Your task to perform on an android device: open app "WhatsApp Messenger" (install if not already installed) and enter user name: "cartons@outlook.com" and password: "approximated" Image 0: 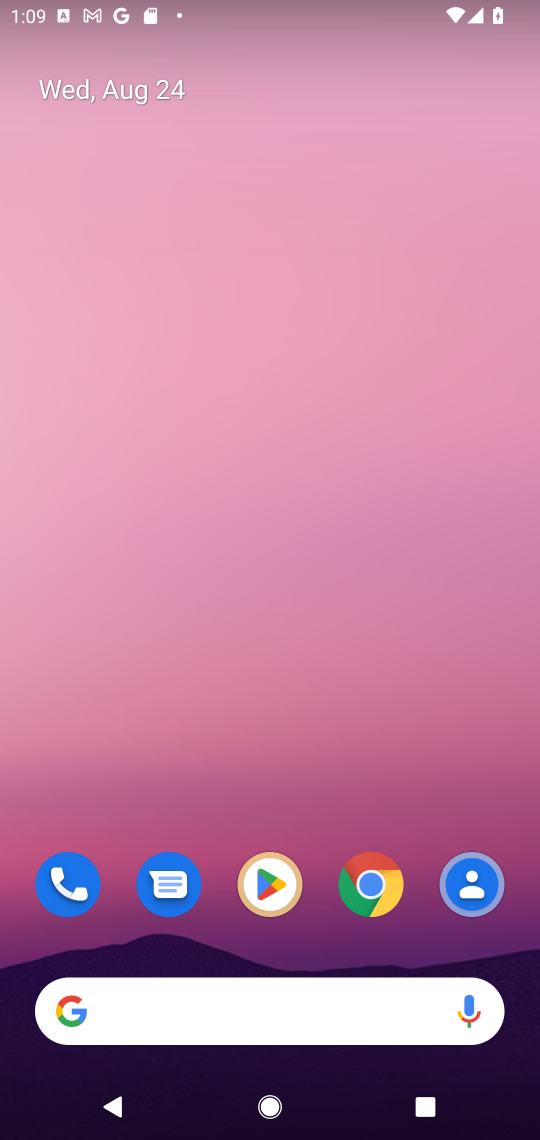
Step 0: drag from (227, 1012) to (263, 197)
Your task to perform on an android device: open app "WhatsApp Messenger" (install if not already installed) and enter user name: "cartons@outlook.com" and password: "approximated" Image 1: 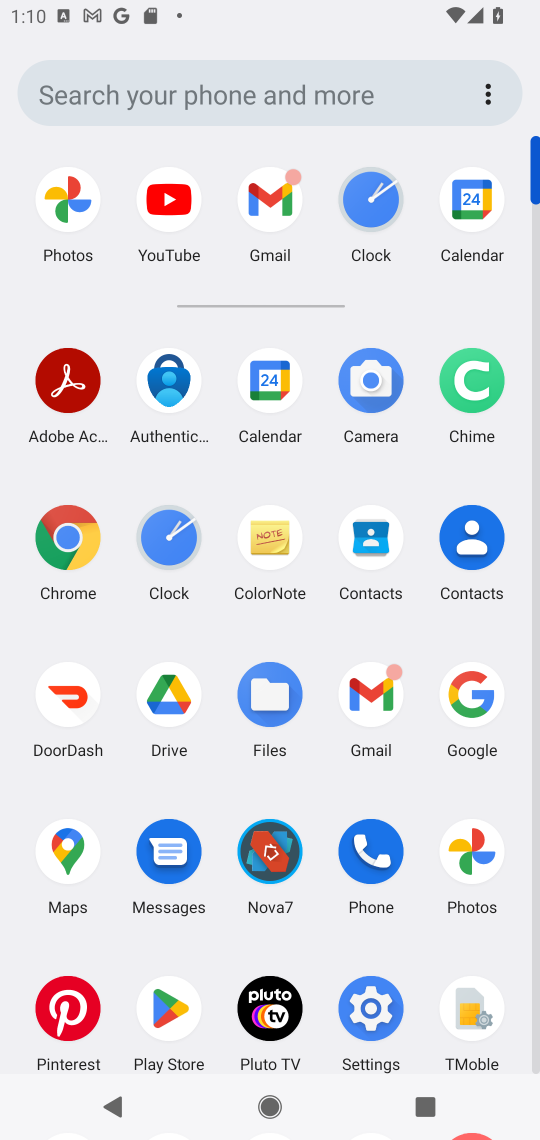
Step 1: click (170, 1004)
Your task to perform on an android device: open app "WhatsApp Messenger" (install if not already installed) and enter user name: "cartons@outlook.com" and password: "approximated" Image 2: 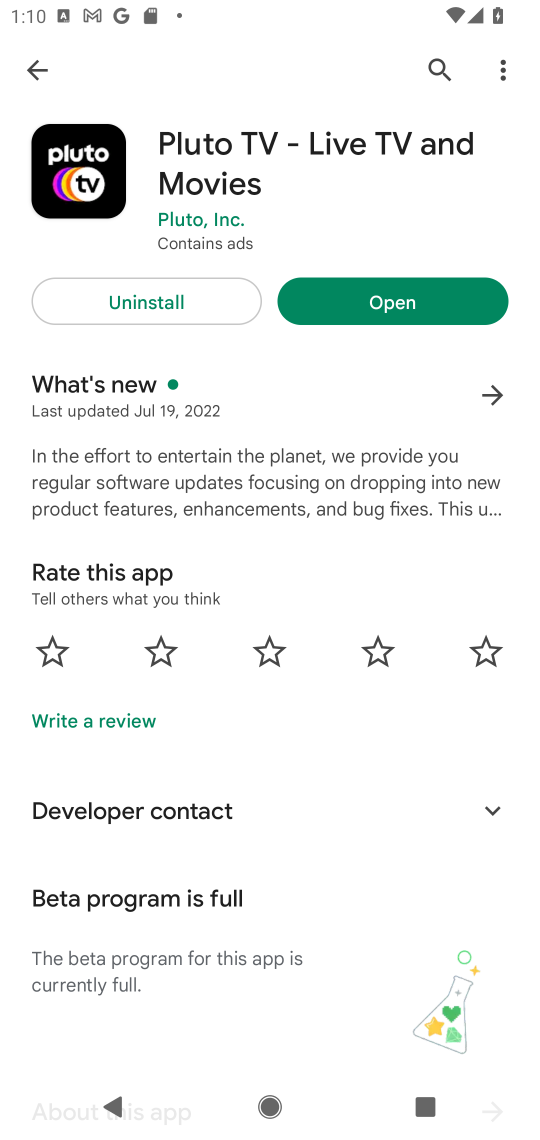
Step 2: press back button
Your task to perform on an android device: open app "WhatsApp Messenger" (install if not already installed) and enter user name: "cartons@outlook.com" and password: "approximated" Image 3: 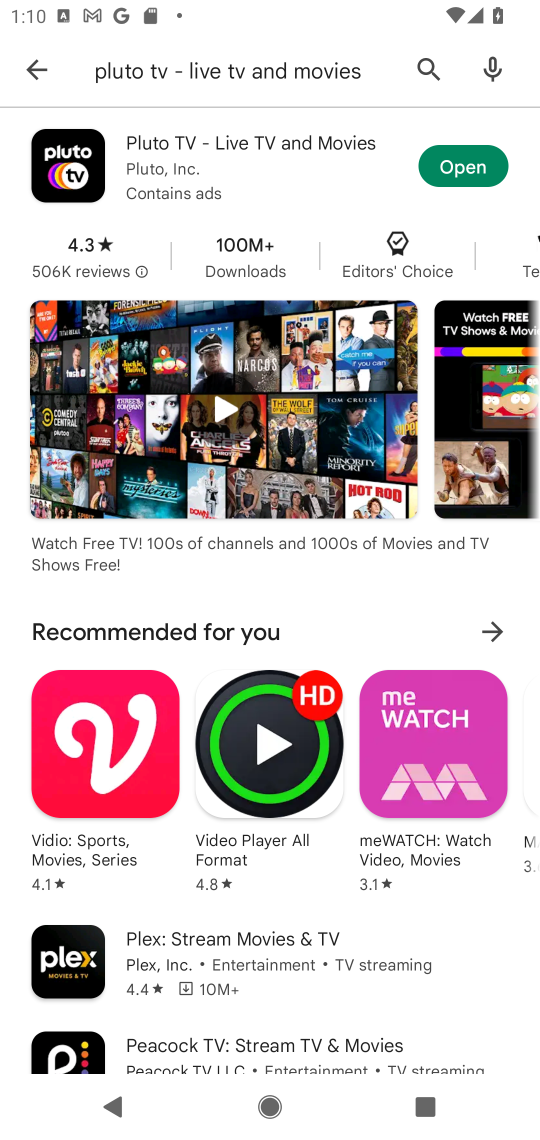
Step 3: press back button
Your task to perform on an android device: open app "WhatsApp Messenger" (install if not already installed) and enter user name: "cartons@outlook.com" and password: "approximated" Image 4: 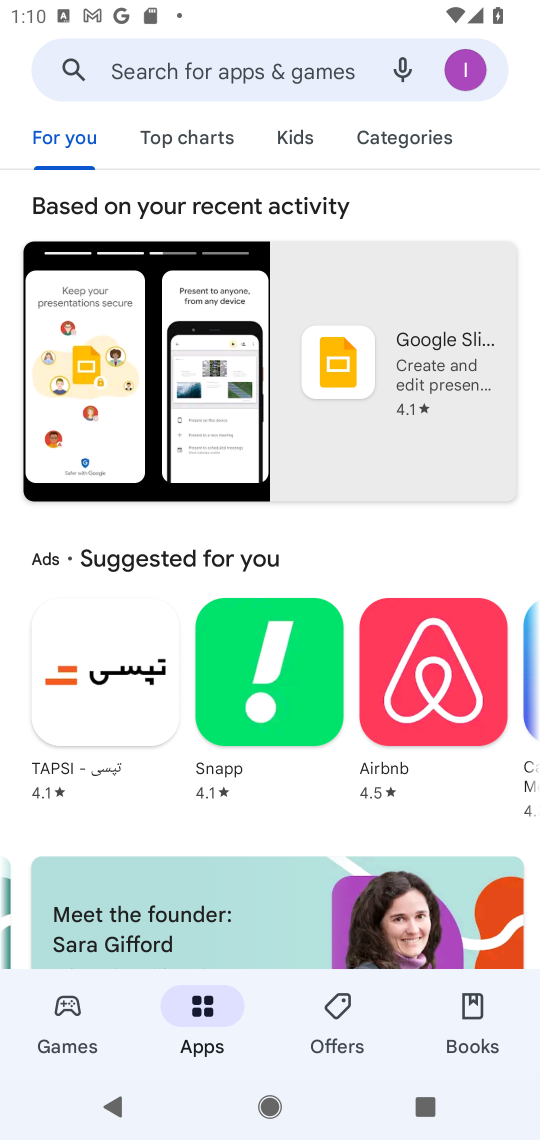
Step 4: click (320, 67)
Your task to perform on an android device: open app "WhatsApp Messenger" (install if not already installed) and enter user name: "cartons@outlook.com" and password: "approximated" Image 5: 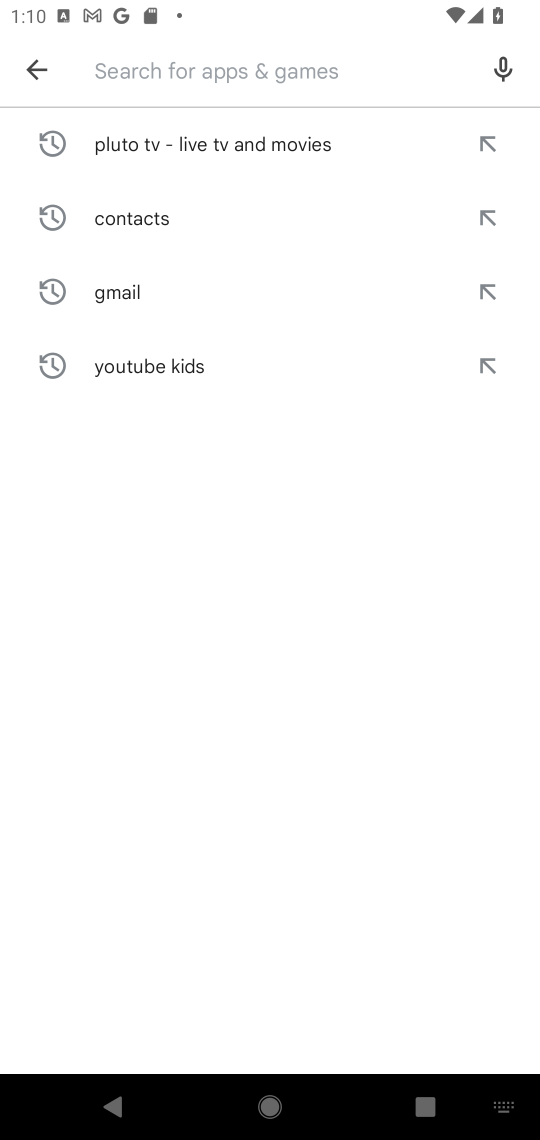
Step 5: type "WhatsApp Messenger"
Your task to perform on an android device: open app "WhatsApp Messenger" (install if not already installed) and enter user name: "cartons@outlook.com" and password: "approximated" Image 6: 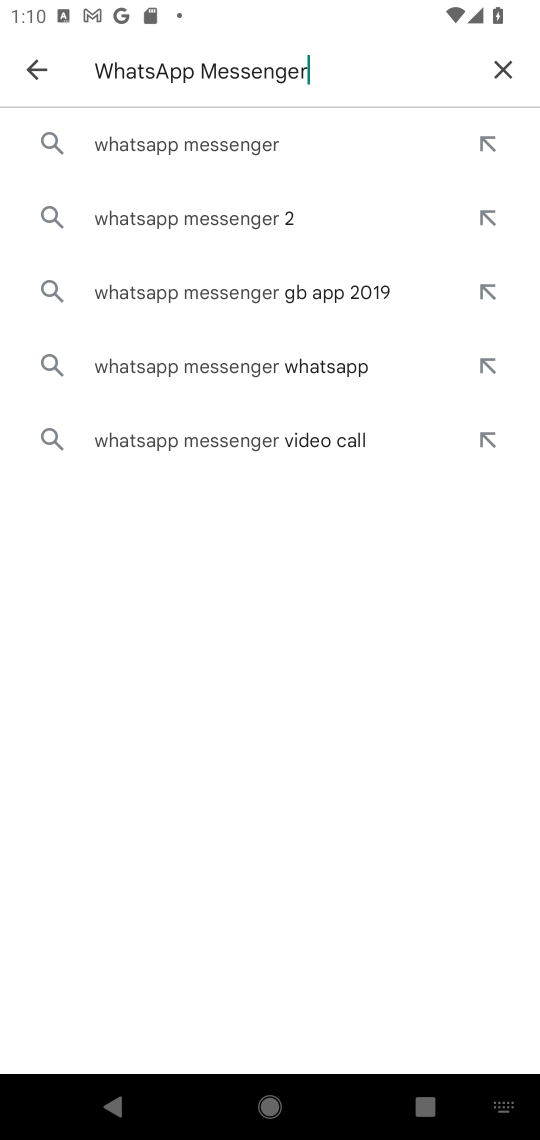
Step 6: click (243, 141)
Your task to perform on an android device: open app "WhatsApp Messenger" (install if not already installed) and enter user name: "cartons@outlook.com" and password: "approximated" Image 7: 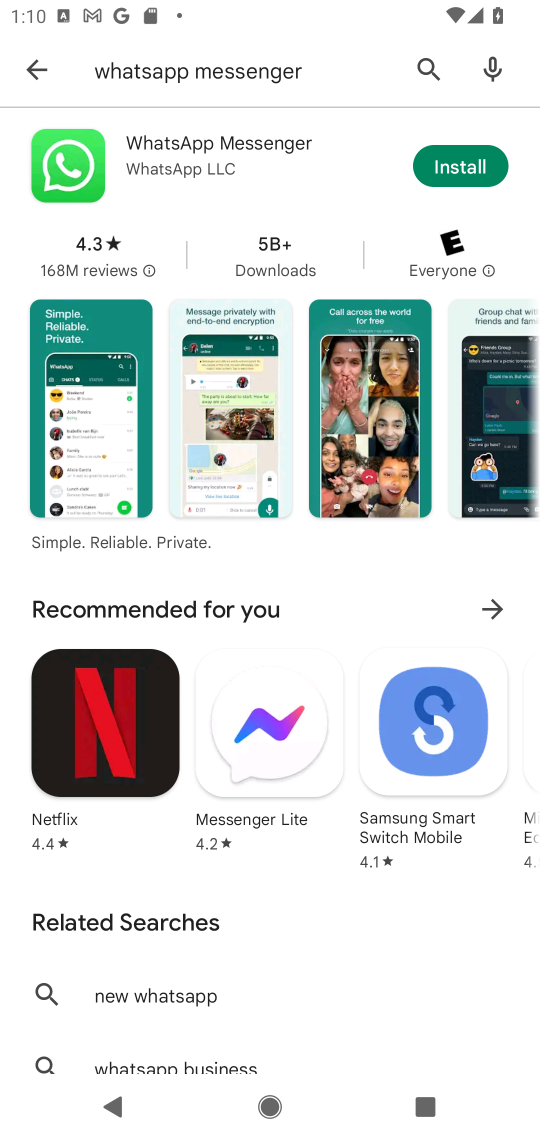
Step 7: click (460, 174)
Your task to perform on an android device: open app "WhatsApp Messenger" (install if not already installed) and enter user name: "cartons@outlook.com" and password: "approximated" Image 8: 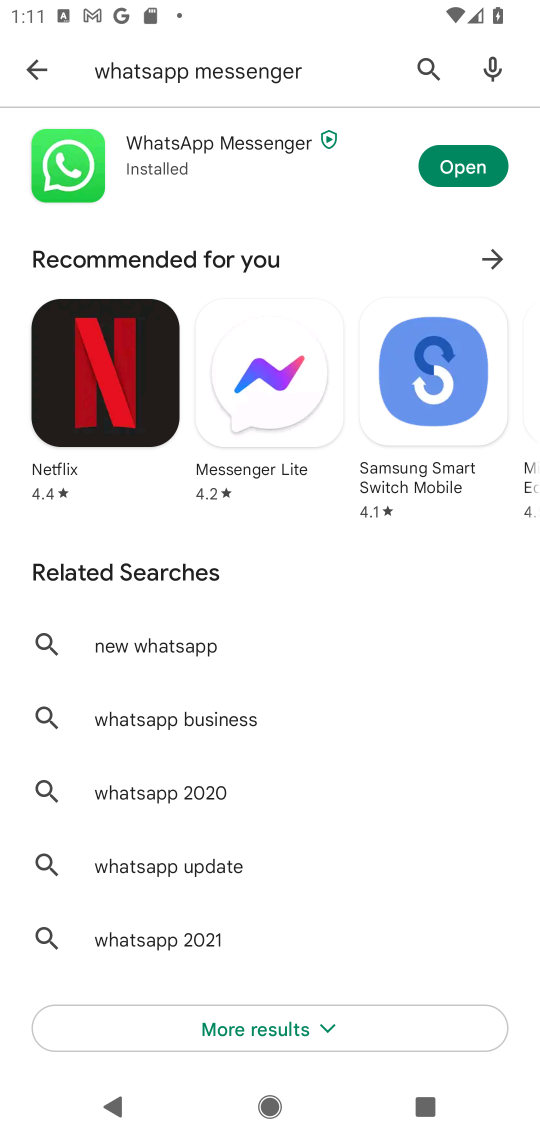
Step 8: click (444, 187)
Your task to perform on an android device: open app "WhatsApp Messenger" (install if not already installed) and enter user name: "cartons@outlook.com" and password: "approximated" Image 9: 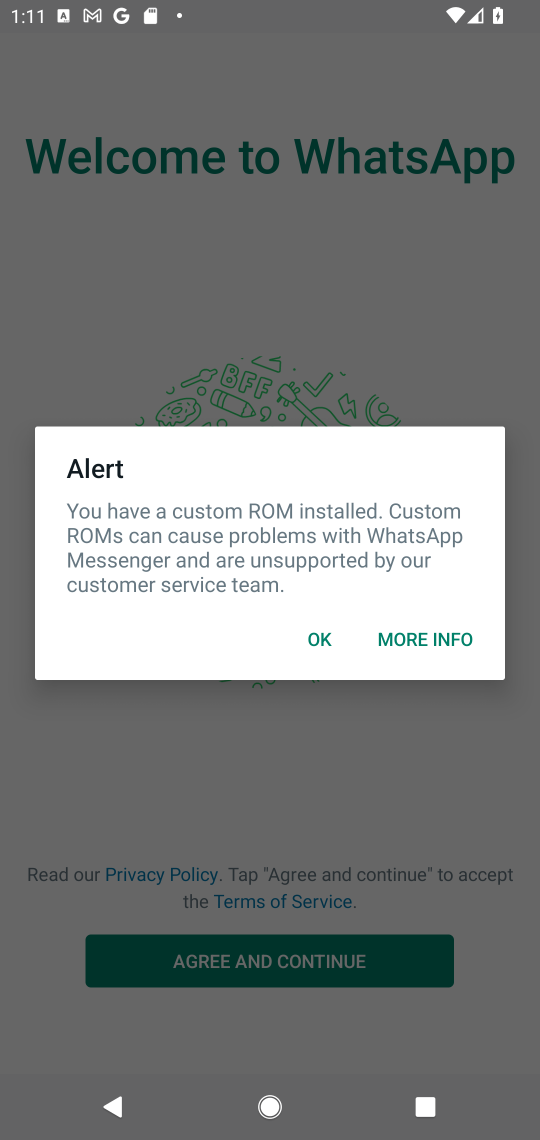
Step 9: click (411, 633)
Your task to perform on an android device: open app "WhatsApp Messenger" (install if not already installed) and enter user name: "cartons@outlook.com" and password: "approximated" Image 10: 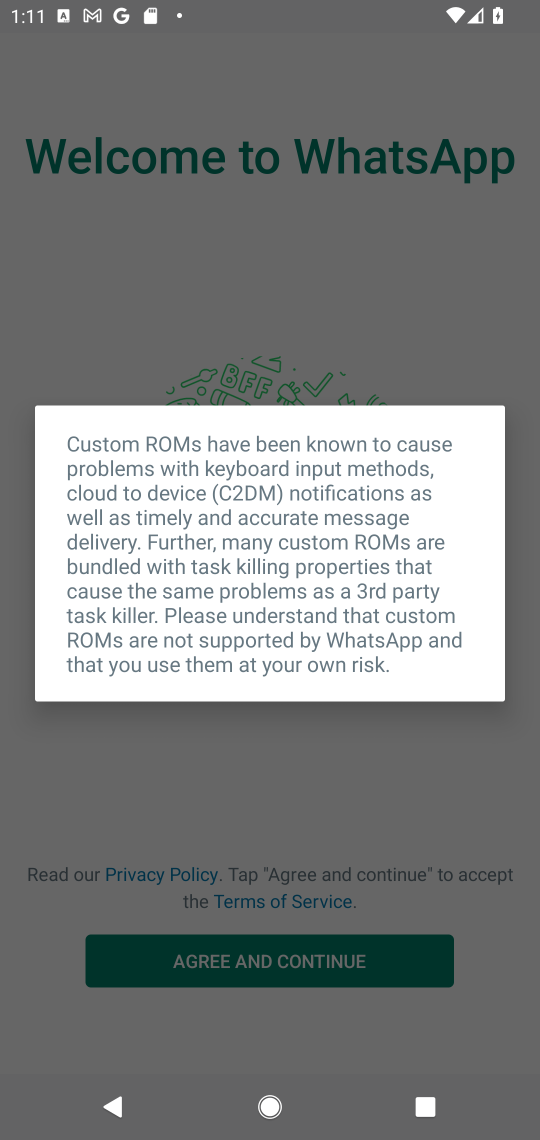
Step 10: click (401, 744)
Your task to perform on an android device: open app "WhatsApp Messenger" (install if not already installed) and enter user name: "cartons@outlook.com" and password: "approximated" Image 11: 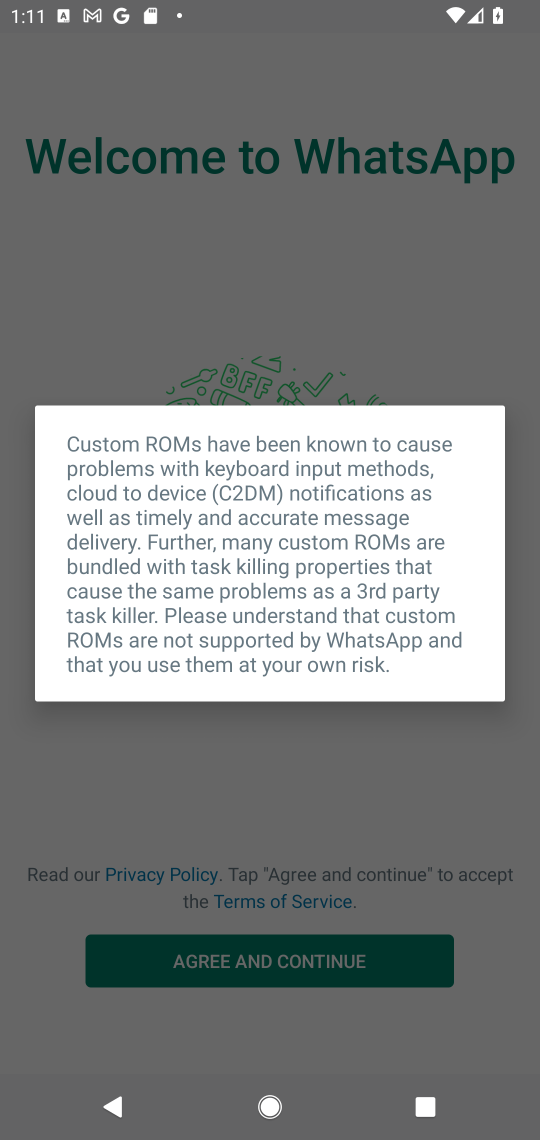
Step 11: click (230, 968)
Your task to perform on an android device: open app "WhatsApp Messenger" (install if not already installed) and enter user name: "cartons@outlook.com" and password: "approximated" Image 12: 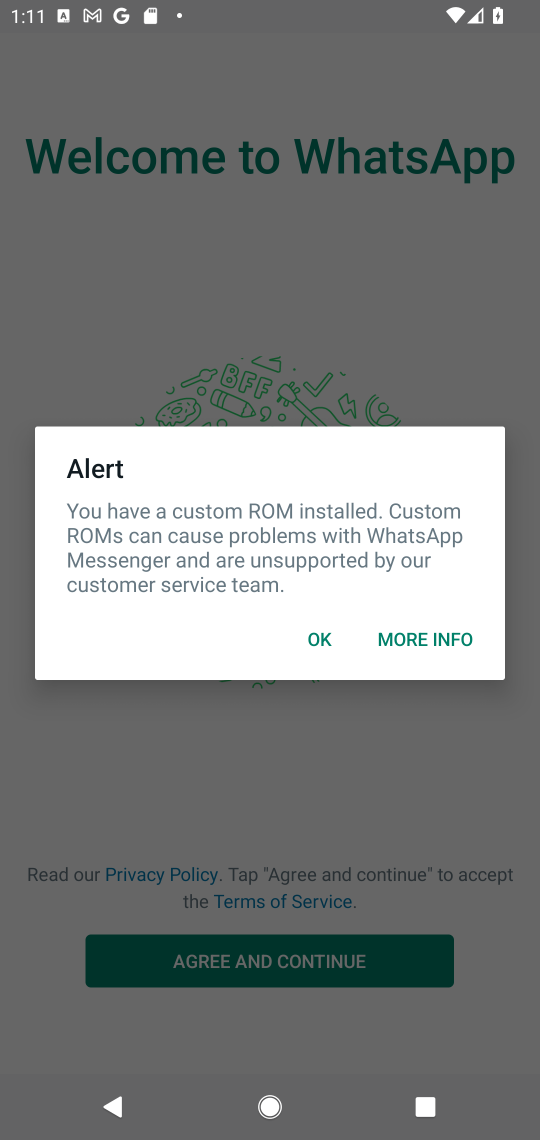
Step 12: click (329, 634)
Your task to perform on an android device: open app "WhatsApp Messenger" (install if not already installed) and enter user name: "cartons@outlook.com" and password: "approximated" Image 13: 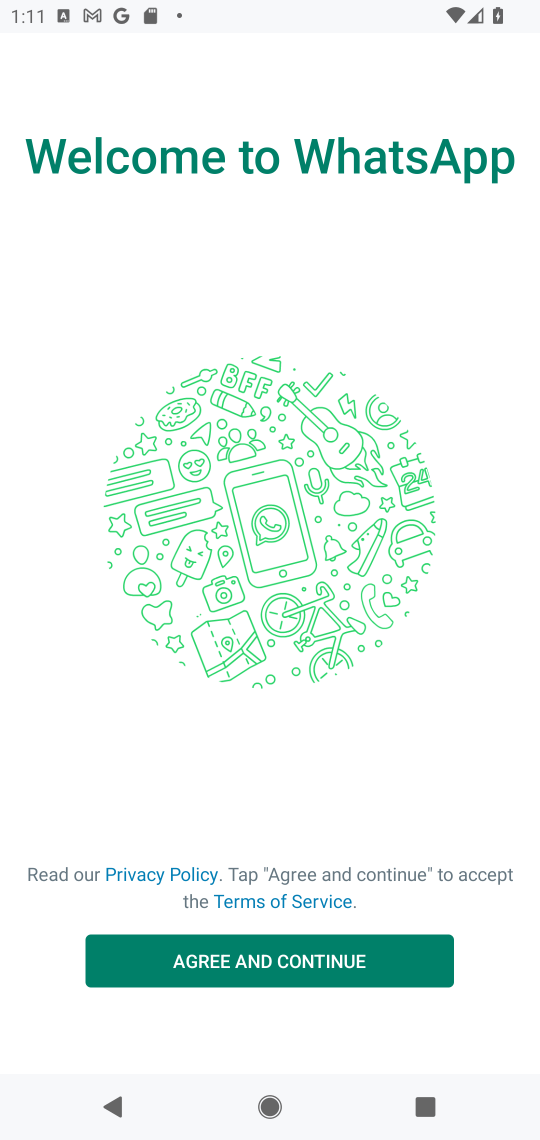
Step 13: click (275, 943)
Your task to perform on an android device: open app "WhatsApp Messenger" (install if not already installed) and enter user name: "cartons@outlook.com" and password: "approximated" Image 14: 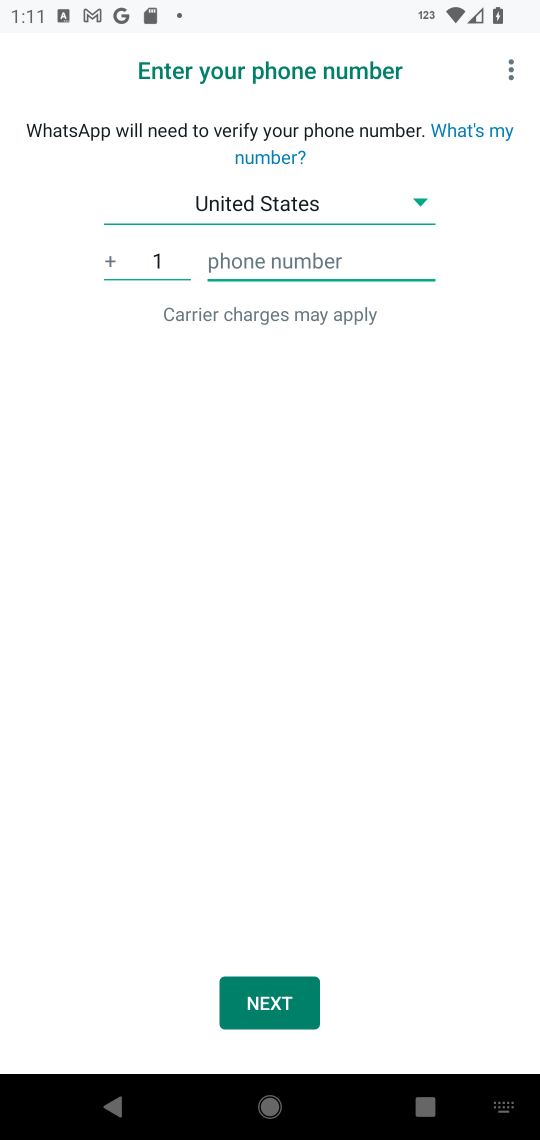
Step 14: task complete